Your task to perform on an android device: What's on my calendar tomorrow? Image 0: 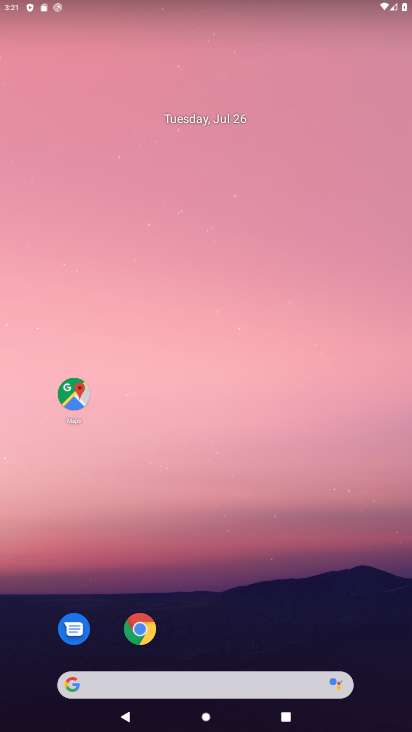
Step 0: drag from (311, 649) to (200, 94)
Your task to perform on an android device: What's on my calendar tomorrow? Image 1: 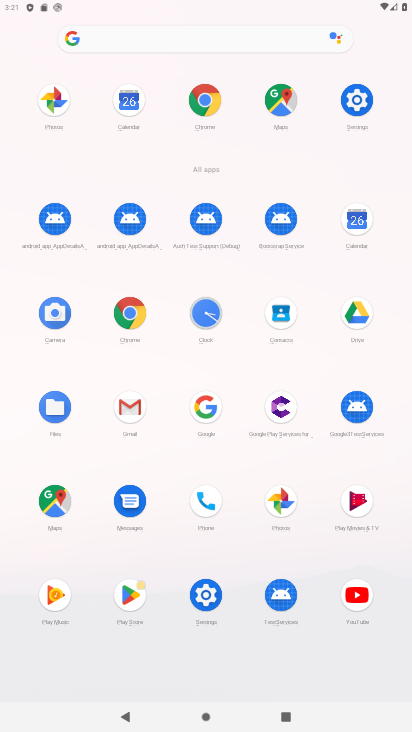
Step 1: click (356, 226)
Your task to perform on an android device: What's on my calendar tomorrow? Image 2: 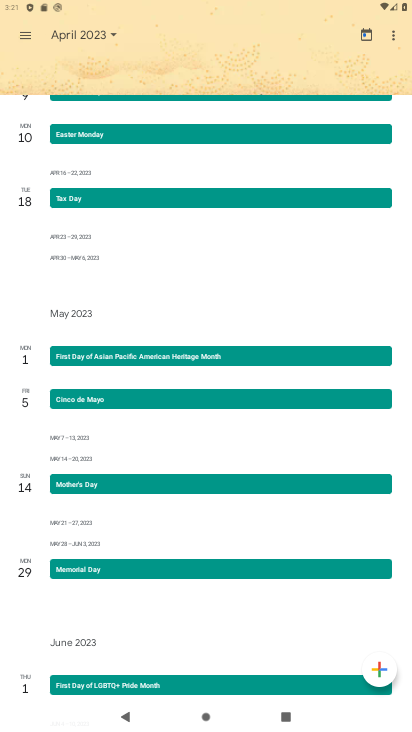
Step 2: click (91, 30)
Your task to perform on an android device: What's on my calendar tomorrow? Image 3: 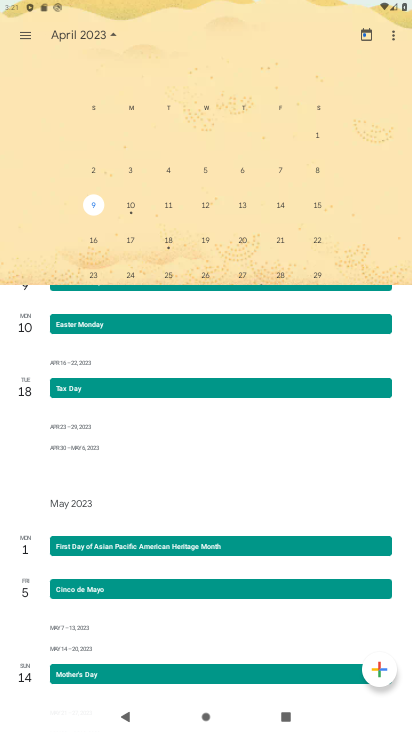
Step 3: drag from (111, 193) to (411, 207)
Your task to perform on an android device: What's on my calendar tomorrow? Image 4: 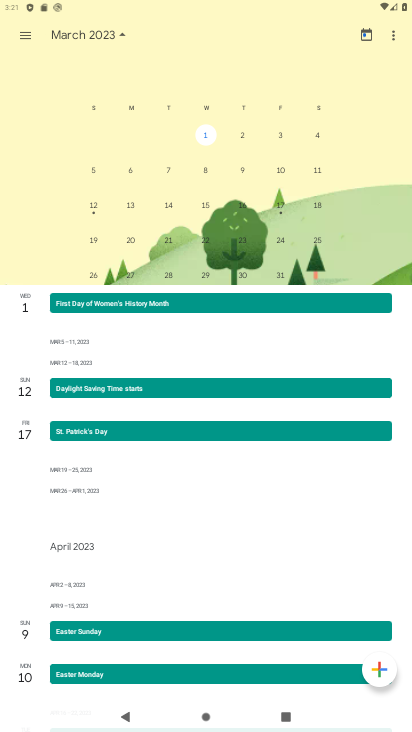
Step 4: drag from (113, 178) to (384, 198)
Your task to perform on an android device: What's on my calendar tomorrow? Image 5: 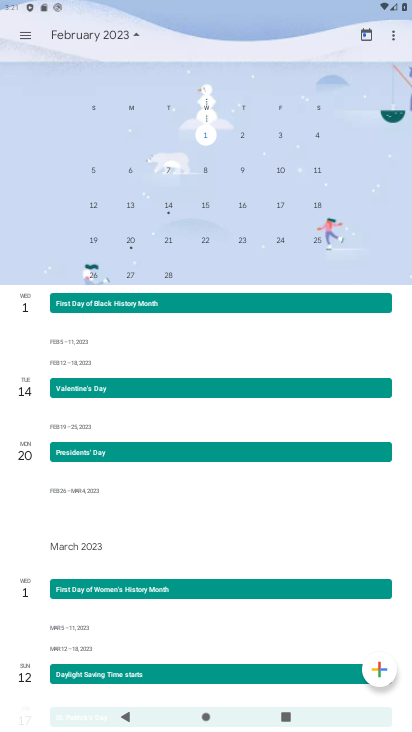
Step 5: drag from (109, 182) to (409, 333)
Your task to perform on an android device: What's on my calendar tomorrow? Image 6: 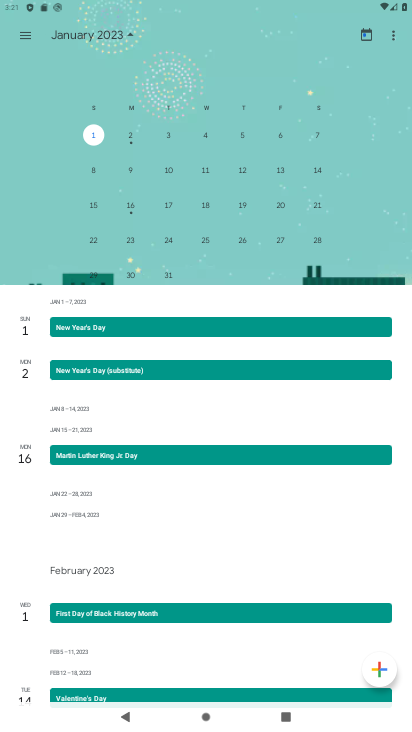
Step 6: drag from (263, 335) to (256, 723)
Your task to perform on an android device: What's on my calendar tomorrow? Image 7: 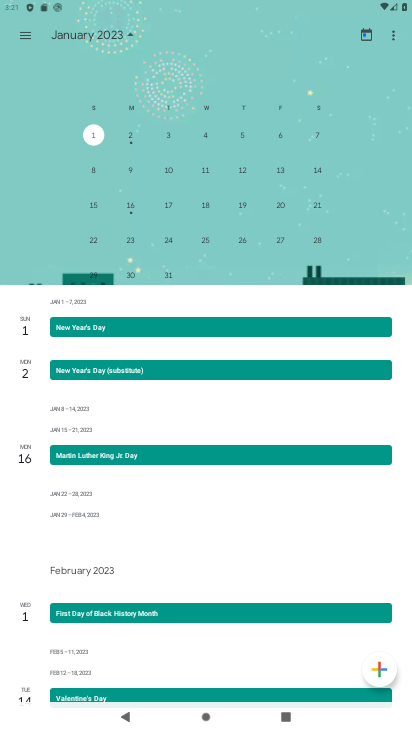
Step 7: drag from (190, 337) to (252, 721)
Your task to perform on an android device: What's on my calendar tomorrow? Image 8: 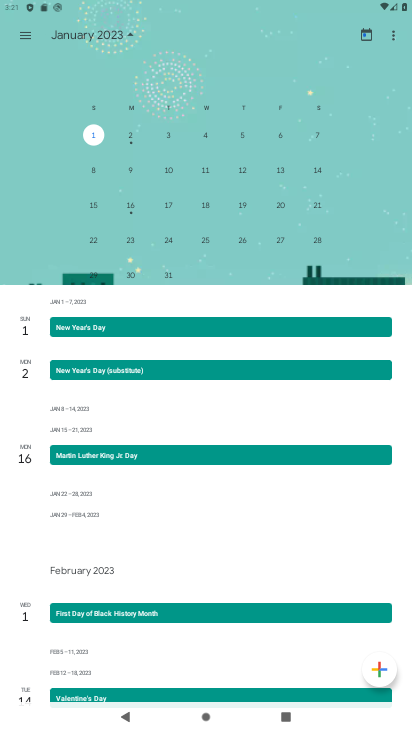
Step 8: drag from (247, 407) to (223, 627)
Your task to perform on an android device: What's on my calendar tomorrow? Image 9: 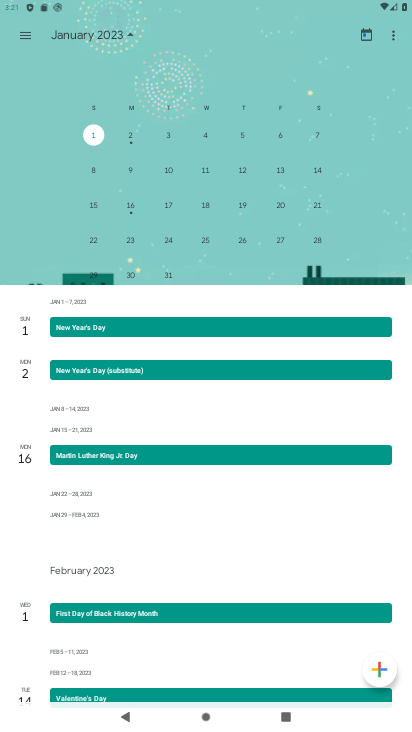
Step 9: drag from (114, 192) to (386, 204)
Your task to perform on an android device: What's on my calendar tomorrow? Image 10: 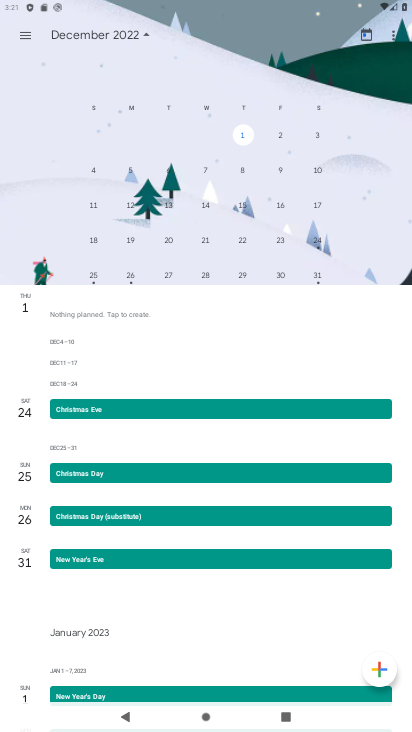
Step 10: drag from (86, 174) to (408, 191)
Your task to perform on an android device: What's on my calendar tomorrow? Image 11: 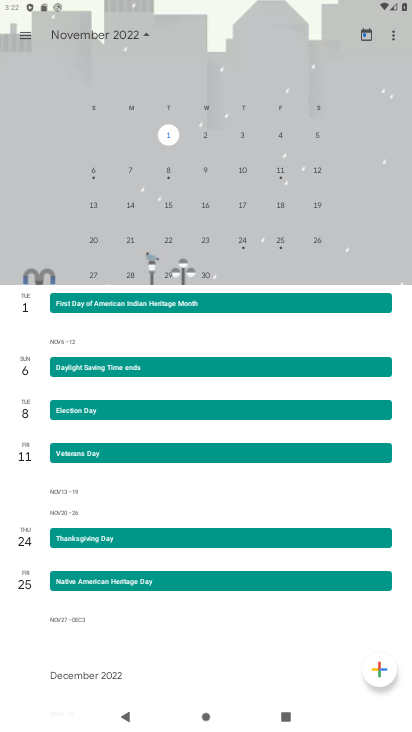
Step 11: drag from (103, 190) to (293, 163)
Your task to perform on an android device: What's on my calendar tomorrow? Image 12: 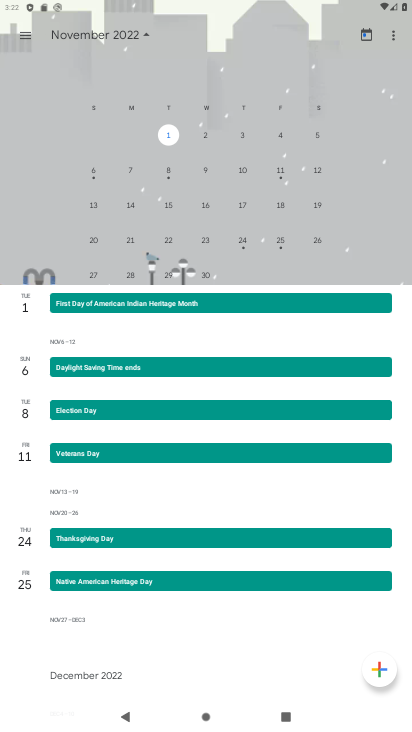
Step 12: drag from (94, 168) to (386, 182)
Your task to perform on an android device: What's on my calendar tomorrow? Image 13: 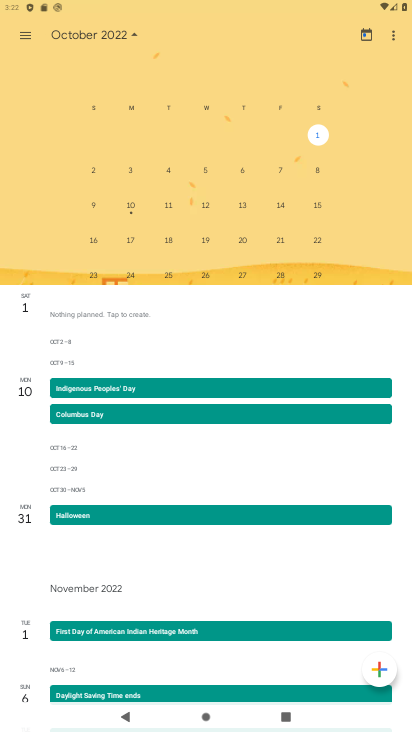
Step 13: drag from (99, 170) to (406, 207)
Your task to perform on an android device: What's on my calendar tomorrow? Image 14: 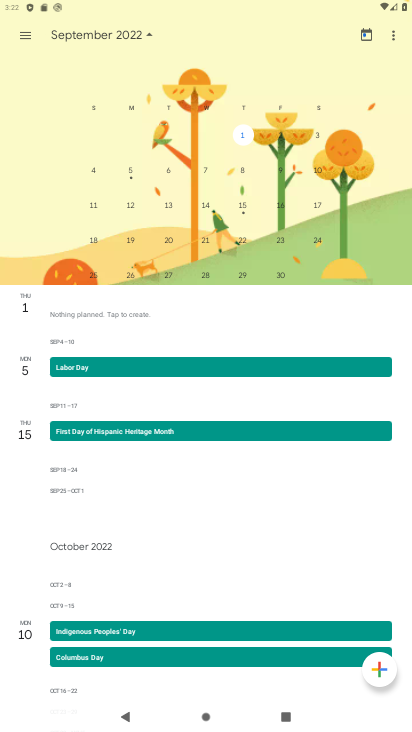
Step 14: drag from (97, 169) to (410, 185)
Your task to perform on an android device: What's on my calendar tomorrow? Image 15: 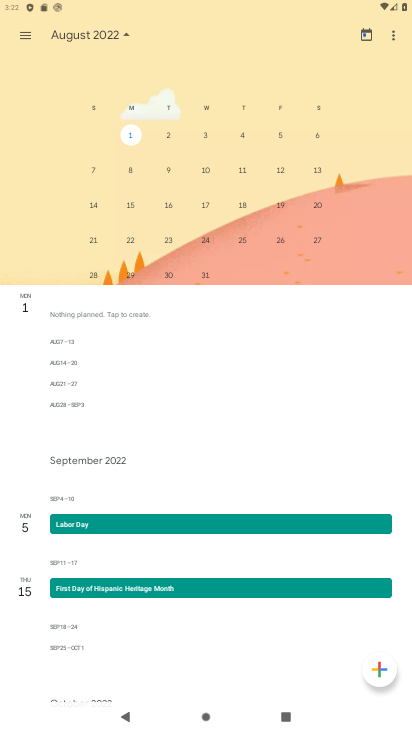
Step 15: drag from (100, 168) to (403, 212)
Your task to perform on an android device: What's on my calendar tomorrow? Image 16: 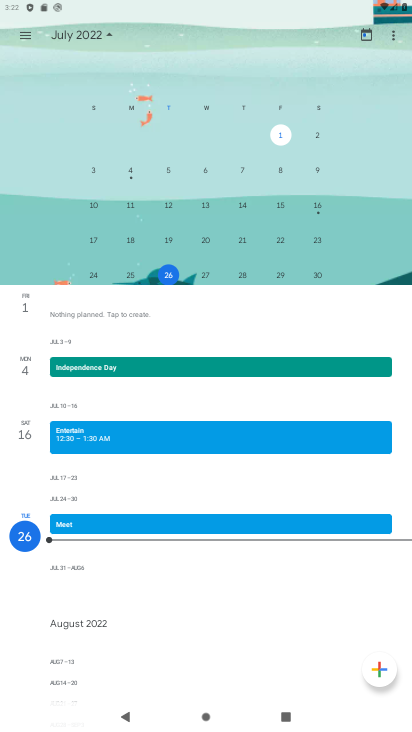
Step 16: click (211, 277)
Your task to perform on an android device: What's on my calendar tomorrow? Image 17: 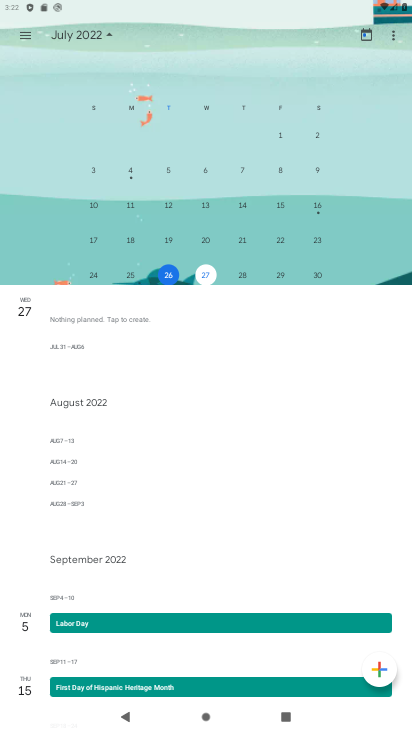
Step 17: click (26, 36)
Your task to perform on an android device: What's on my calendar tomorrow? Image 18: 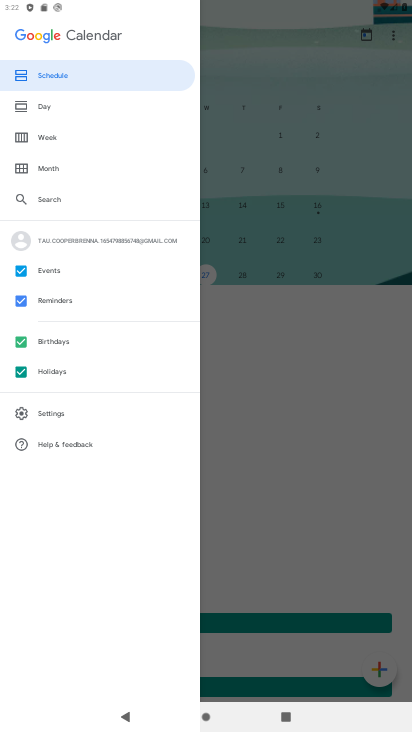
Step 18: click (55, 110)
Your task to perform on an android device: What's on my calendar tomorrow? Image 19: 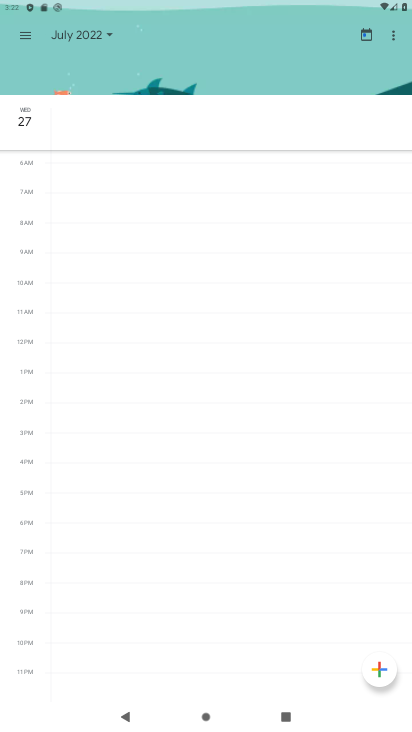
Step 19: task complete